Your task to perform on an android device: Open Amazon Image 0: 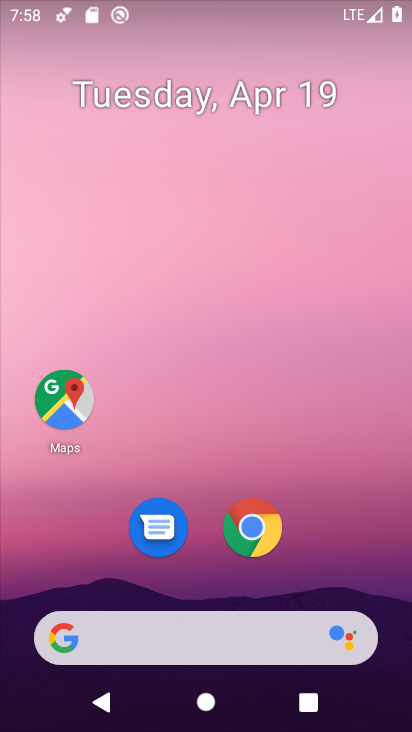
Step 0: drag from (385, 493) to (406, 218)
Your task to perform on an android device: Open Amazon Image 1: 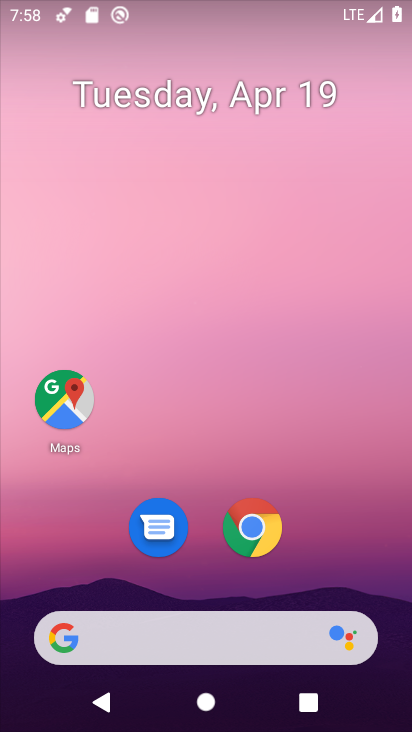
Step 1: click (264, 530)
Your task to perform on an android device: Open Amazon Image 2: 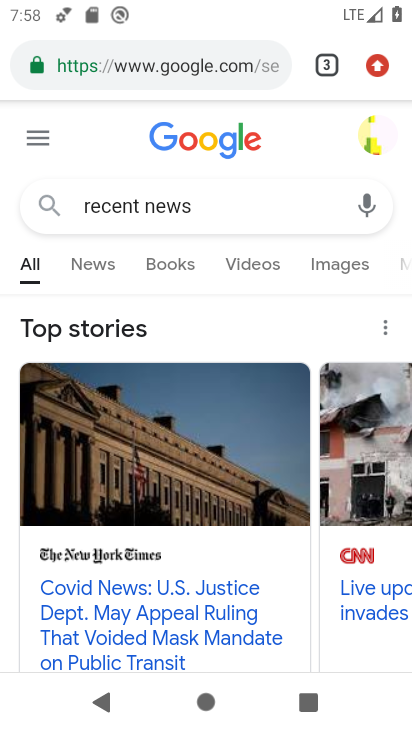
Step 2: click (335, 68)
Your task to perform on an android device: Open Amazon Image 3: 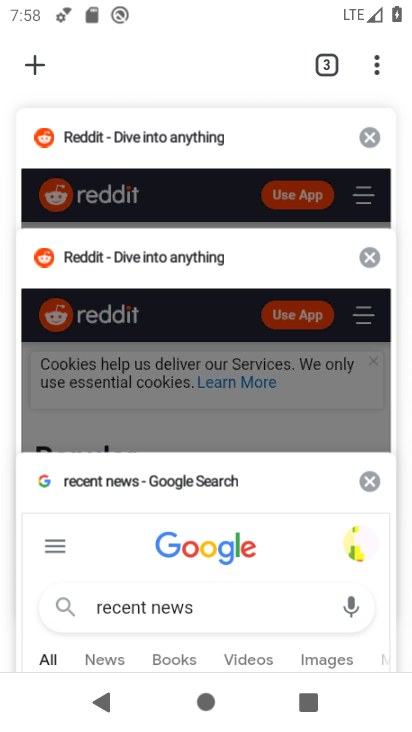
Step 3: click (27, 71)
Your task to perform on an android device: Open Amazon Image 4: 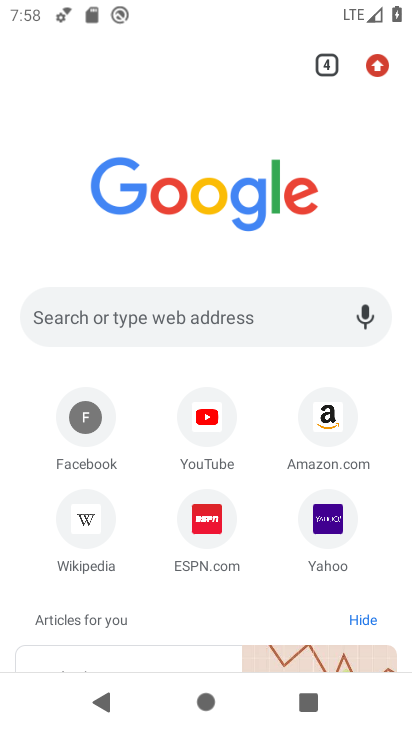
Step 4: click (229, 319)
Your task to perform on an android device: Open Amazon Image 5: 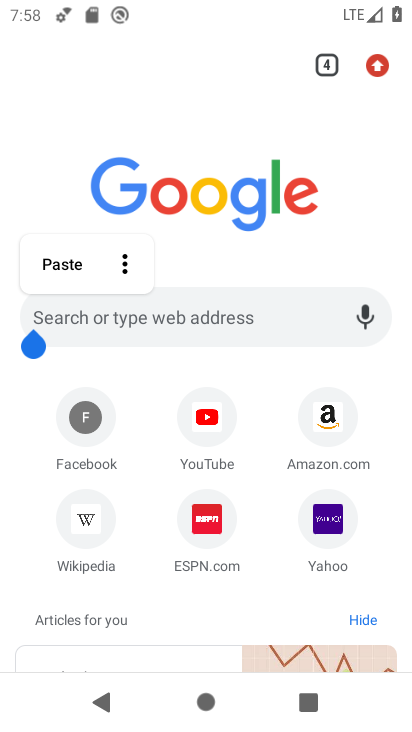
Step 5: click (336, 444)
Your task to perform on an android device: Open Amazon Image 6: 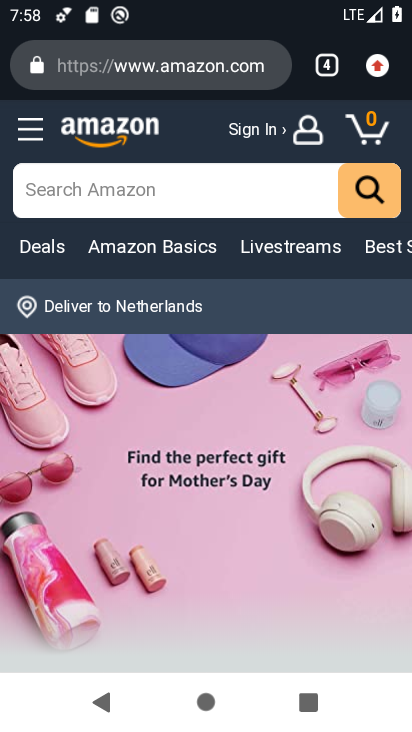
Step 6: task complete